Your task to perform on an android device: toggle sleep mode Image 0: 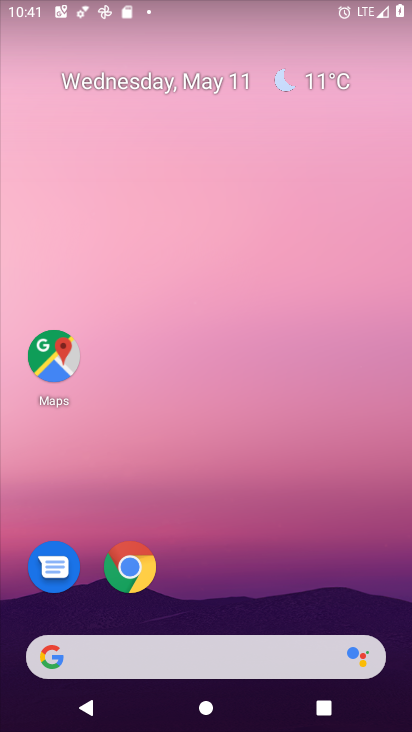
Step 0: drag from (268, 564) to (207, 137)
Your task to perform on an android device: toggle sleep mode Image 1: 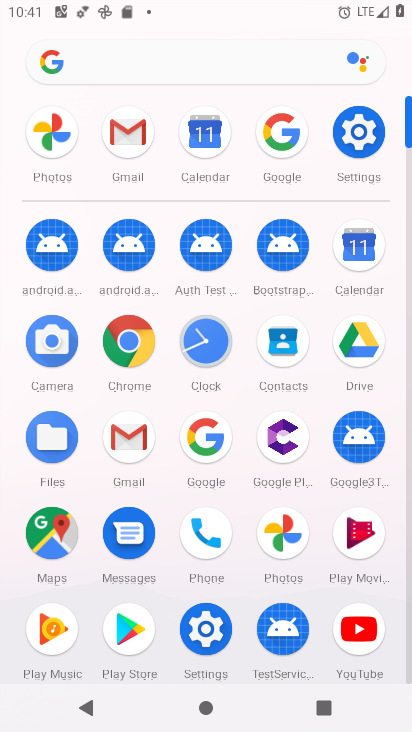
Step 1: click (354, 138)
Your task to perform on an android device: toggle sleep mode Image 2: 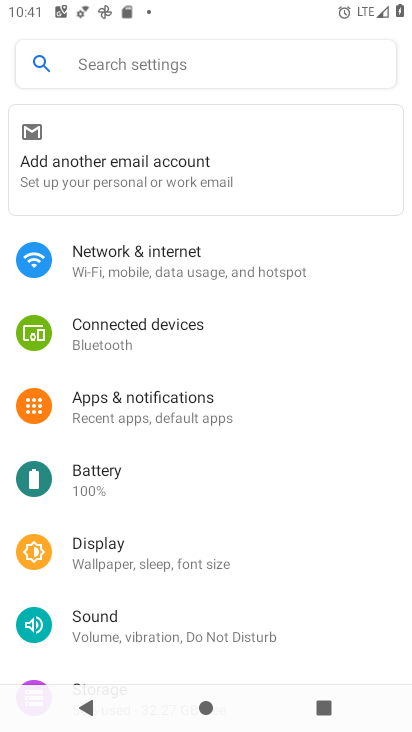
Step 2: click (159, 558)
Your task to perform on an android device: toggle sleep mode Image 3: 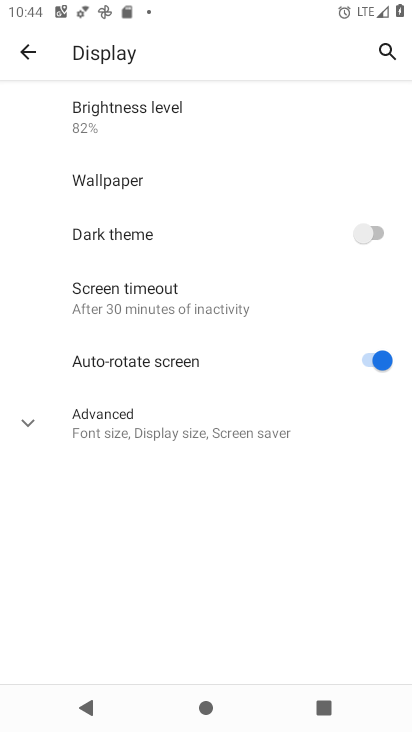
Step 3: task complete